Your task to perform on an android device: find snoozed emails in the gmail app Image 0: 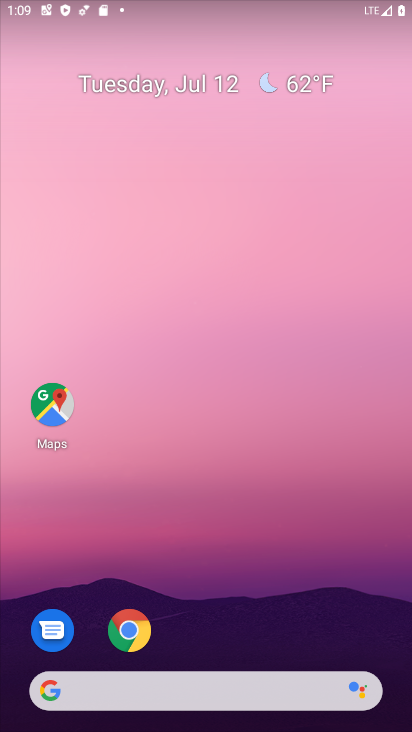
Step 0: drag from (216, 609) to (300, 27)
Your task to perform on an android device: find snoozed emails in the gmail app Image 1: 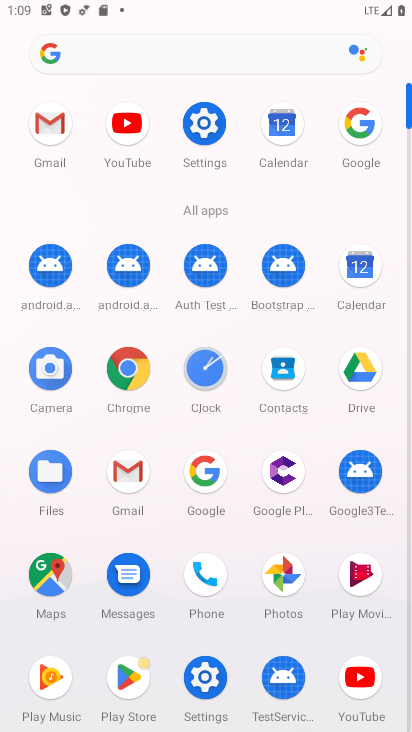
Step 1: click (43, 129)
Your task to perform on an android device: find snoozed emails in the gmail app Image 2: 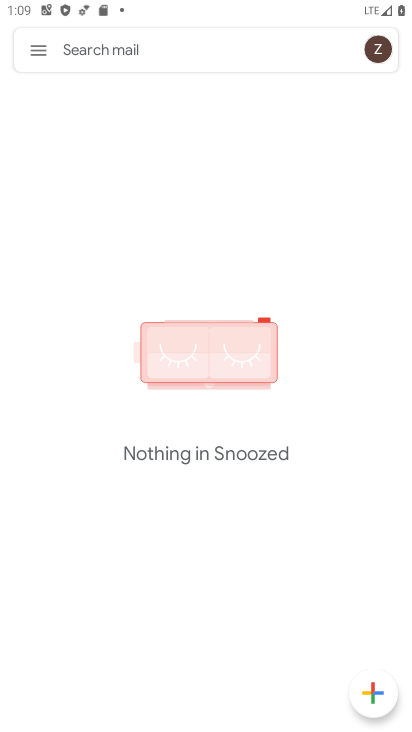
Step 2: task complete